Your task to perform on an android device: Go to Wikipedia Image 0: 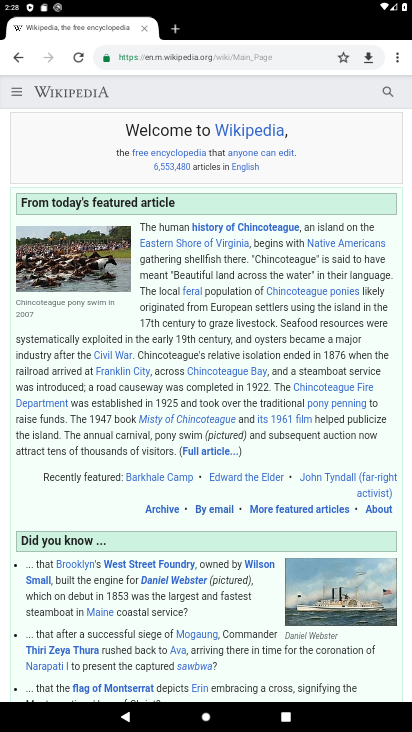
Step 0: task complete